Your task to perform on an android device: turn pop-ups off in chrome Image 0: 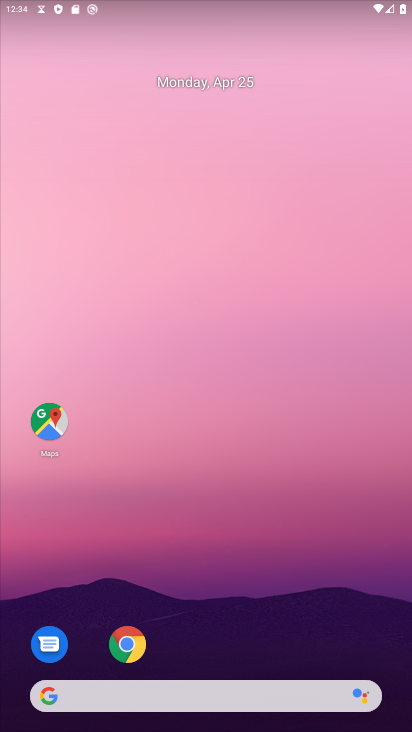
Step 0: click (122, 644)
Your task to perform on an android device: turn pop-ups off in chrome Image 1: 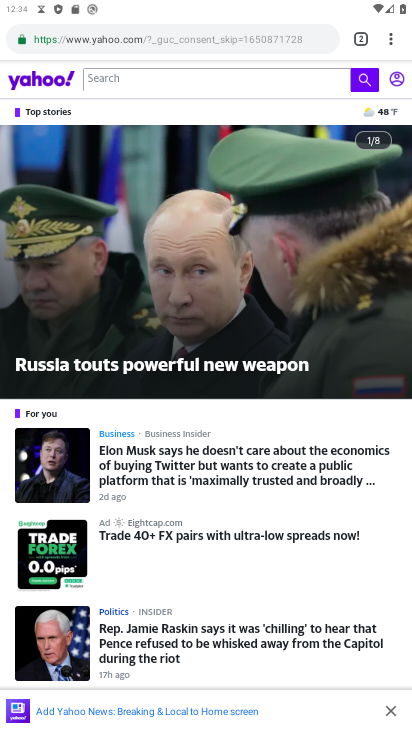
Step 1: drag from (389, 37) to (259, 516)
Your task to perform on an android device: turn pop-ups off in chrome Image 2: 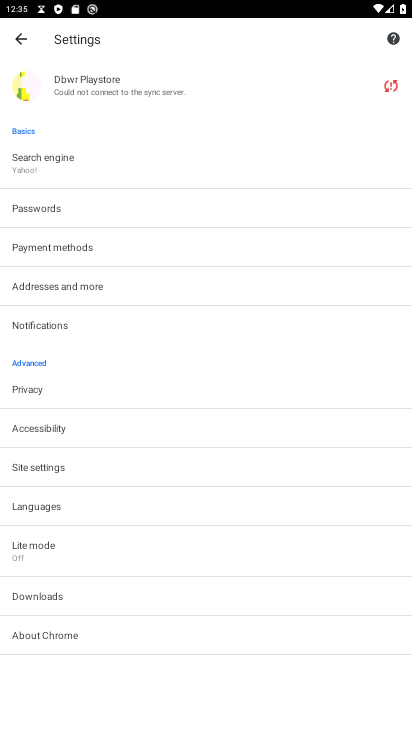
Step 2: click (20, 470)
Your task to perform on an android device: turn pop-ups off in chrome Image 3: 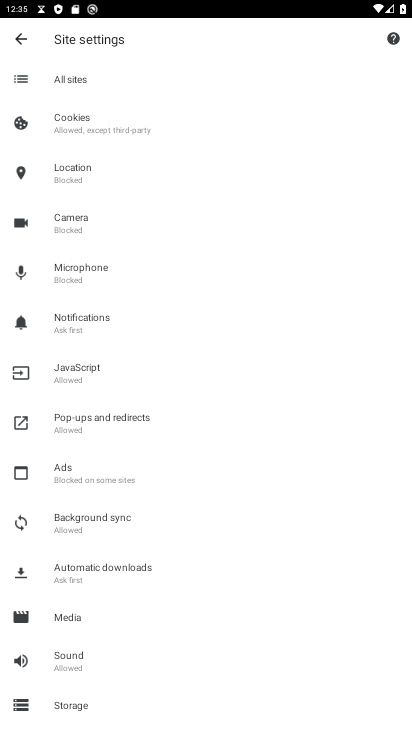
Step 3: click (106, 419)
Your task to perform on an android device: turn pop-ups off in chrome Image 4: 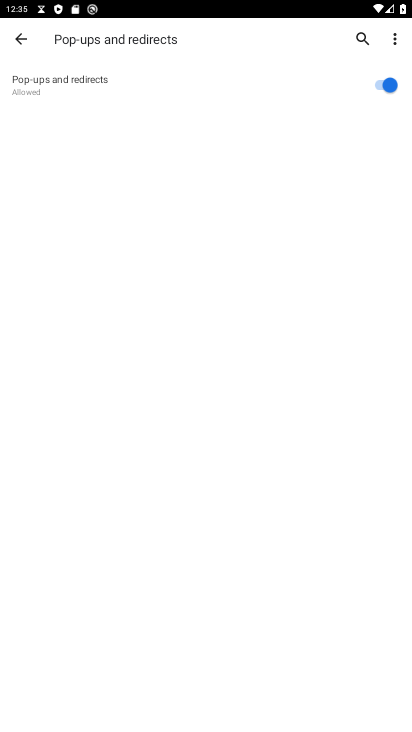
Step 4: click (378, 87)
Your task to perform on an android device: turn pop-ups off in chrome Image 5: 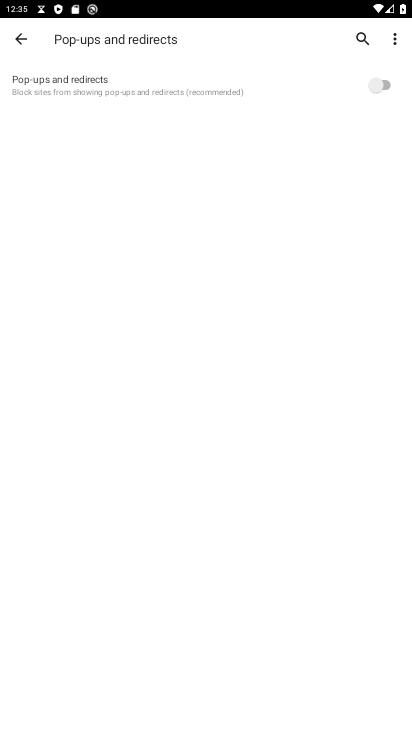
Step 5: task complete